Your task to perform on an android device: turn on improve location accuracy Image 0: 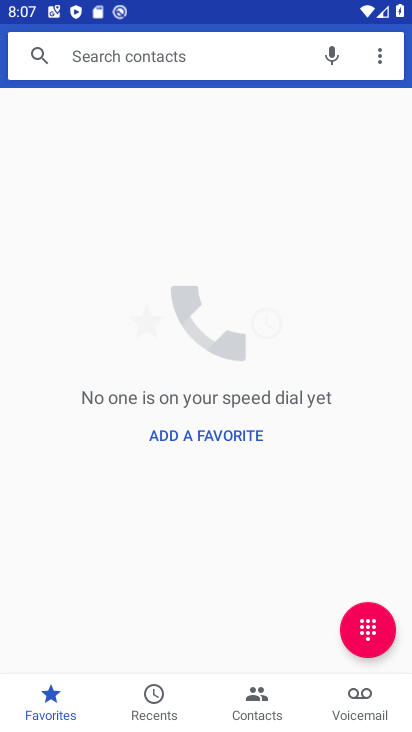
Step 0: press home button
Your task to perform on an android device: turn on improve location accuracy Image 1: 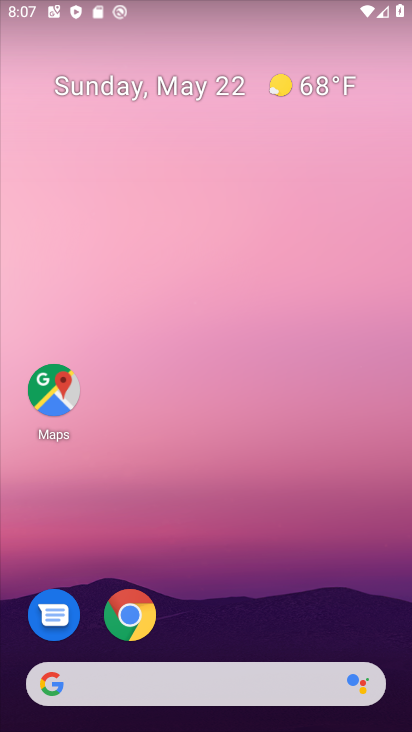
Step 1: drag from (204, 641) to (349, 12)
Your task to perform on an android device: turn on improve location accuracy Image 2: 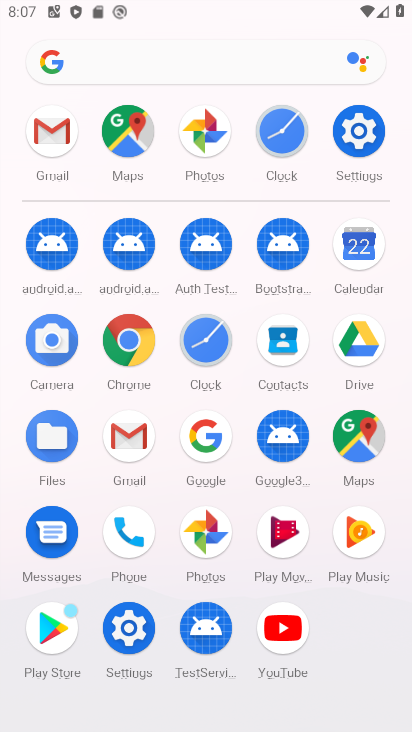
Step 2: click (356, 130)
Your task to perform on an android device: turn on improve location accuracy Image 3: 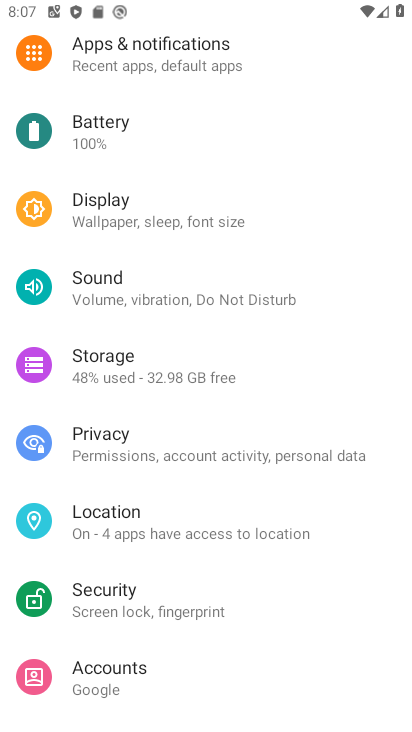
Step 3: click (131, 513)
Your task to perform on an android device: turn on improve location accuracy Image 4: 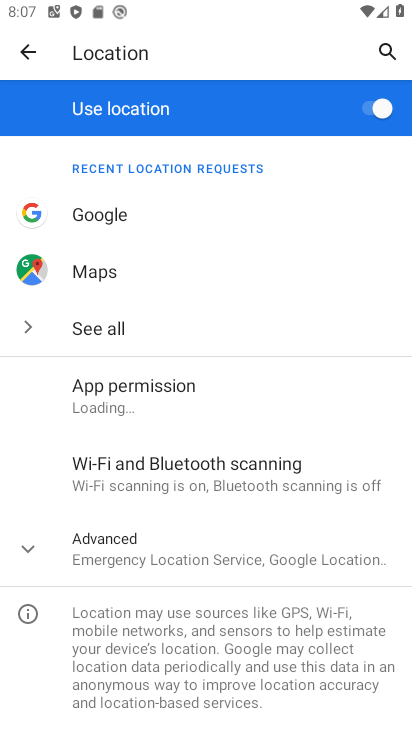
Step 4: click (126, 527)
Your task to perform on an android device: turn on improve location accuracy Image 5: 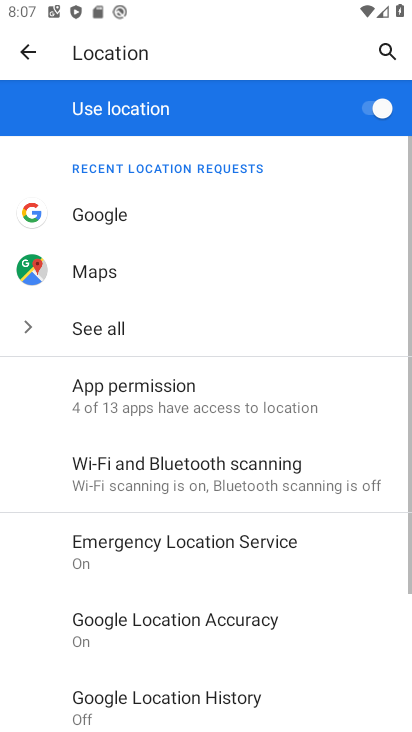
Step 5: click (152, 631)
Your task to perform on an android device: turn on improve location accuracy Image 6: 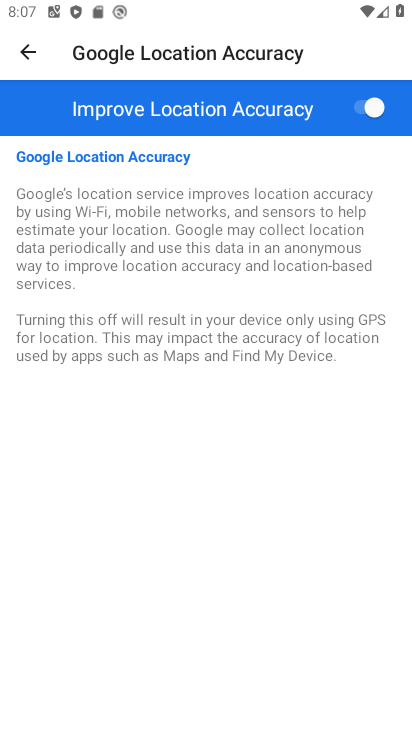
Step 6: task complete